Your task to perform on an android device: What's the weather today? Image 0: 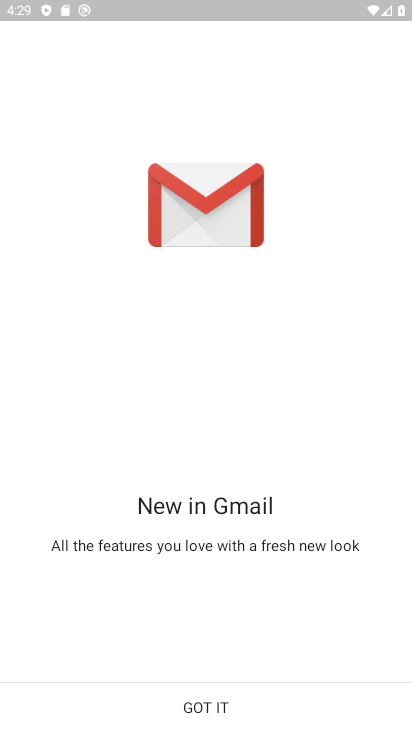
Step 0: press home button
Your task to perform on an android device: What's the weather today? Image 1: 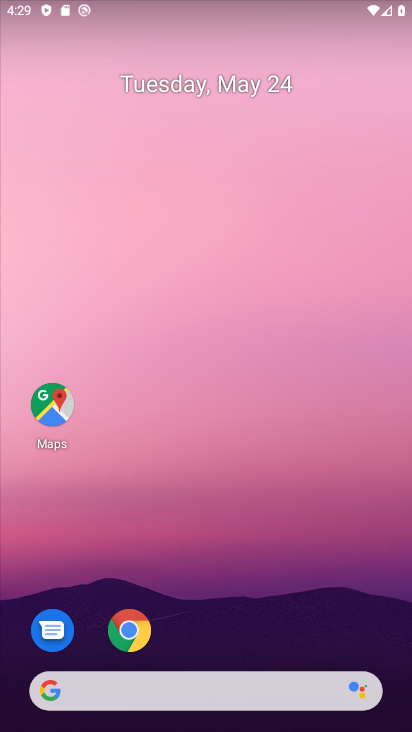
Step 1: click (118, 673)
Your task to perform on an android device: What's the weather today? Image 2: 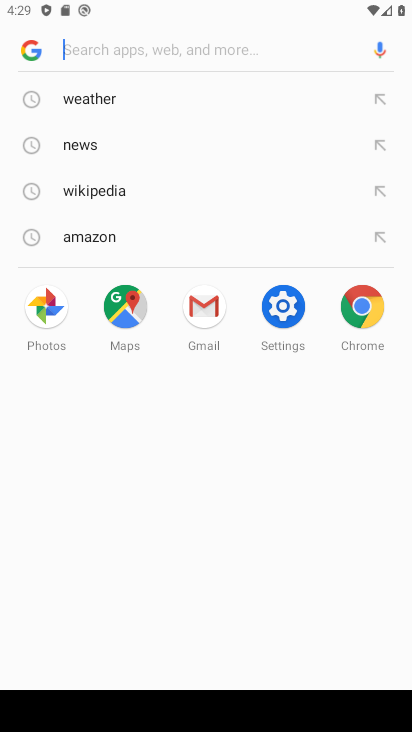
Step 2: click (98, 105)
Your task to perform on an android device: What's the weather today? Image 3: 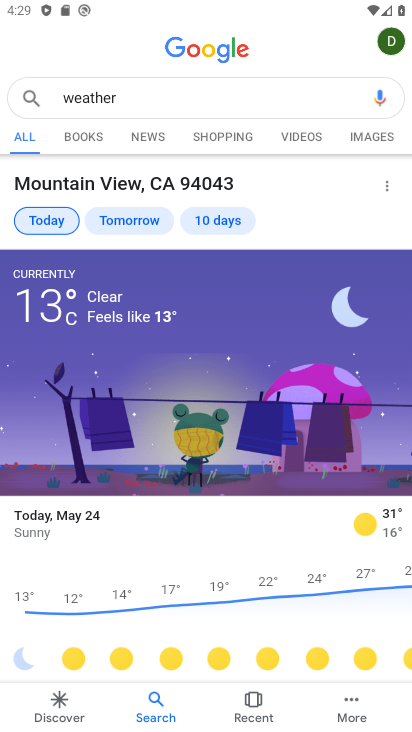
Step 3: task complete